Your task to perform on an android device: Go to battery settings Image 0: 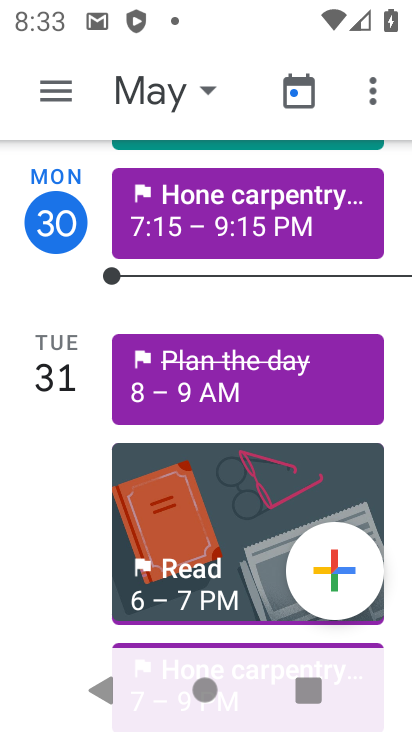
Step 0: press home button
Your task to perform on an android device: Go to battery settings Image 1: 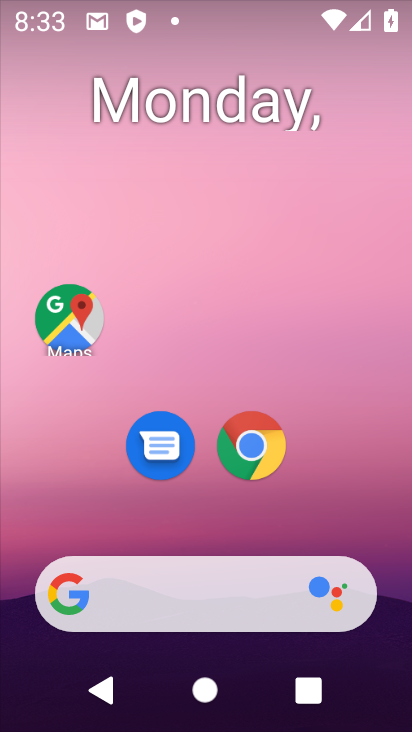
Step 1: drag from (155, 667) to (103, 118)
Your task to perform on an android device: Go to battery settings Image 2: 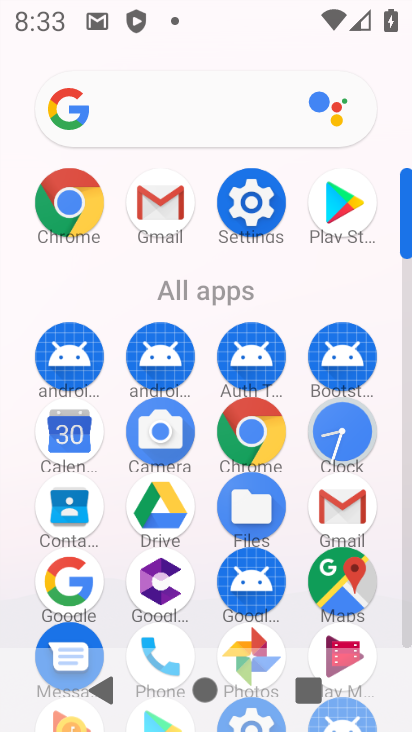
Step 2: click (244, 194)
Your task to perform on an android device: Go to battery settings Image 3: 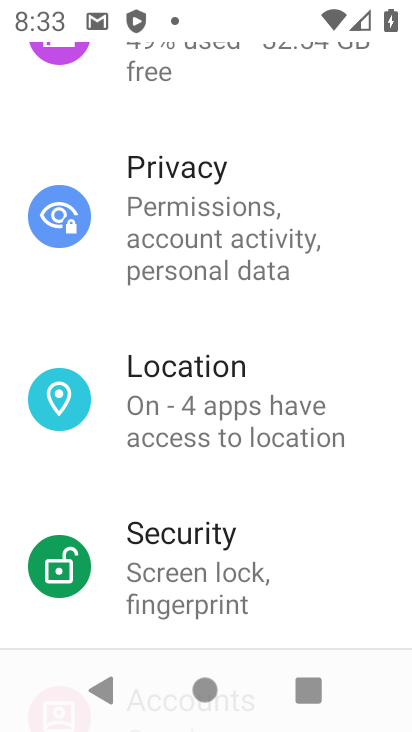
Step 3: drag from (232, 143) to (225, 531)
Your task to perform on an android device: Go to battery settings Image 4: 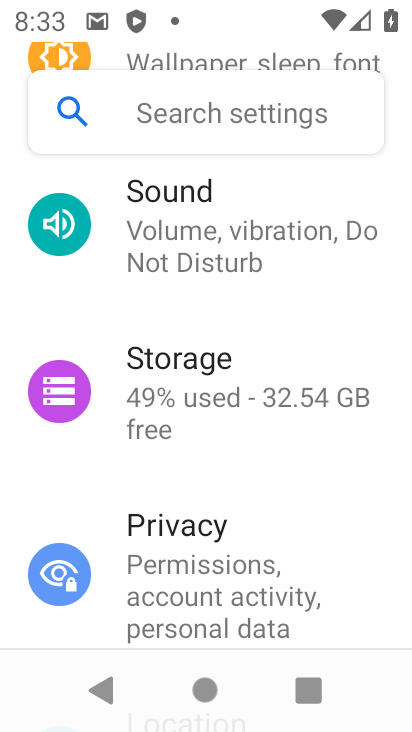
Step 4: drag from (250, 202) to (244, 571)
Your task to perform on an android device: Go to battery settings Image 5: 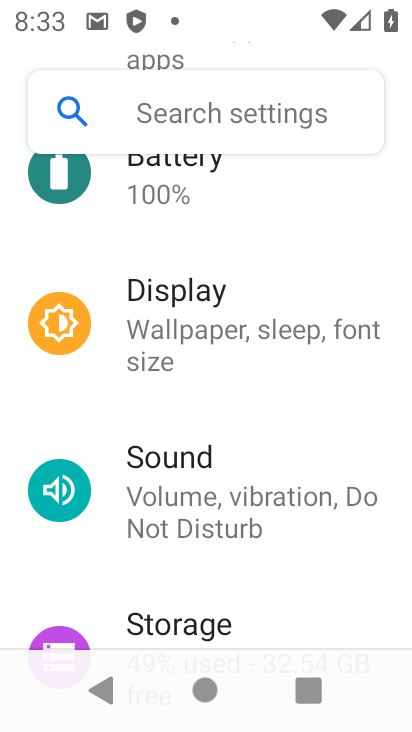
Step 5: click (215, 169)
Your task to perform on an android device: Go to battery settings Image 6: 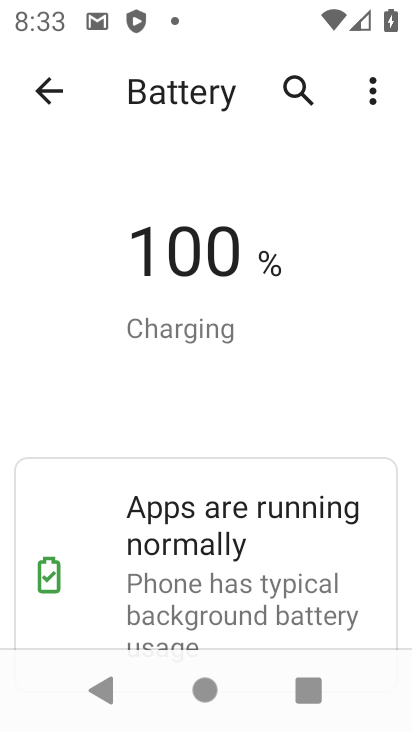
Step 6: task complete